Your task to perform on an android device: delete a single message in the gmail app Image 0: 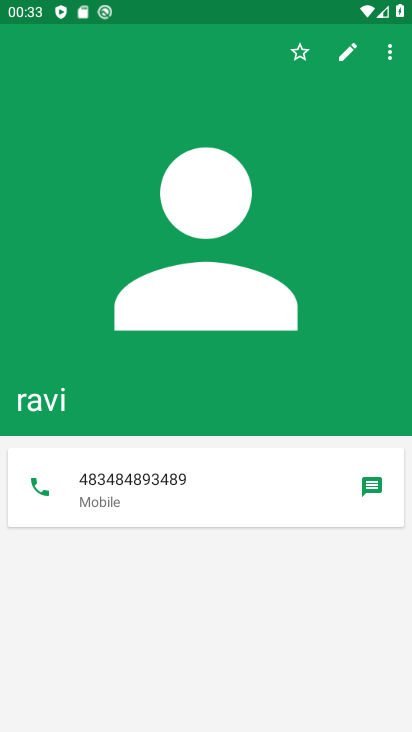
Step 0: press home button
Your task to perform on an android device: delete a single message in the gmail app Image 1: 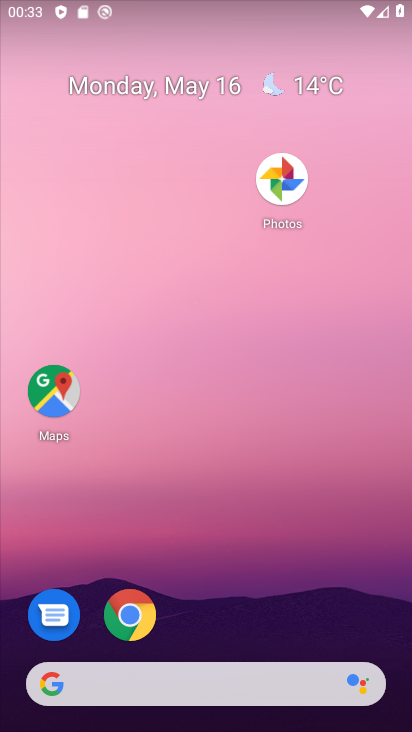
Step 1: drag from (391, 635) to (355, 315)
Your task to perform on an android device: delete a single message in the gmail app Image 2: 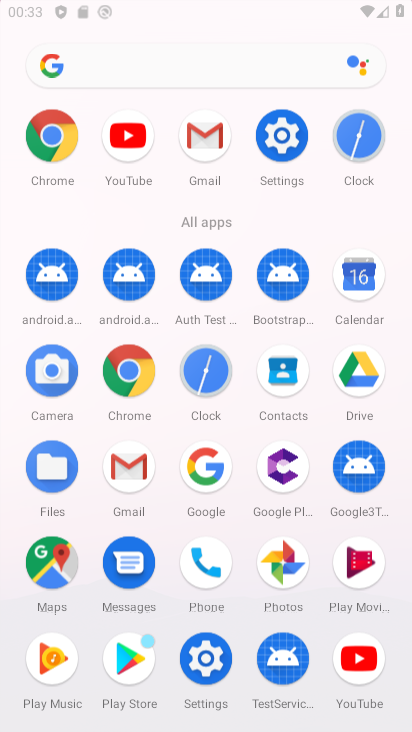
Step 2: click (150, 206)
Your task to perform on an android device: delete a single message in the gmail app Image 3: 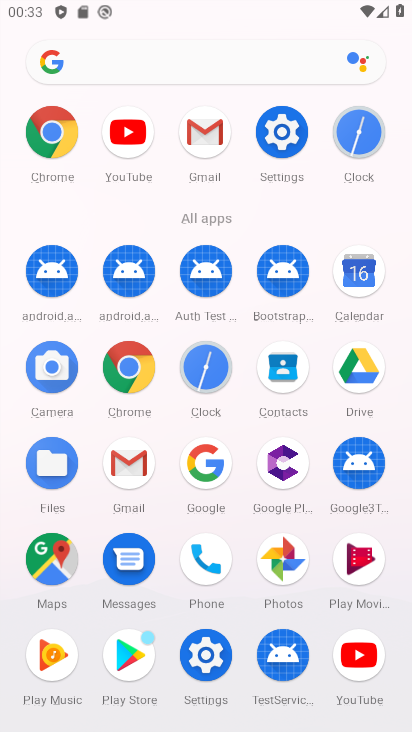
Step 3: click (140, 469)
Your task to perform on an android device: delete a single message in the gmail app Image 4: 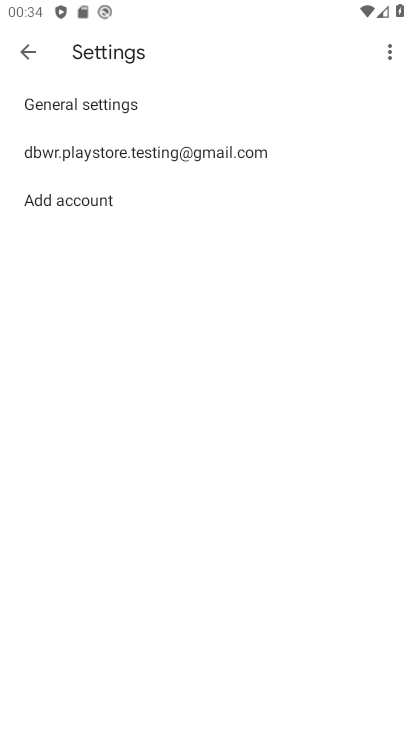
Step 4: click (230, 159)
Your task to perform on an android device: delete a single message in the gmail app Image 5: 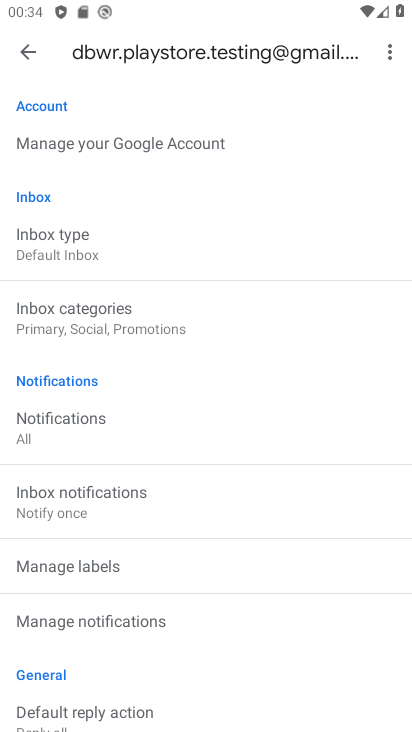
Step 5: click (50, 67)
Your task to perform on an android device: delete a single message in the gmail app Image 6: 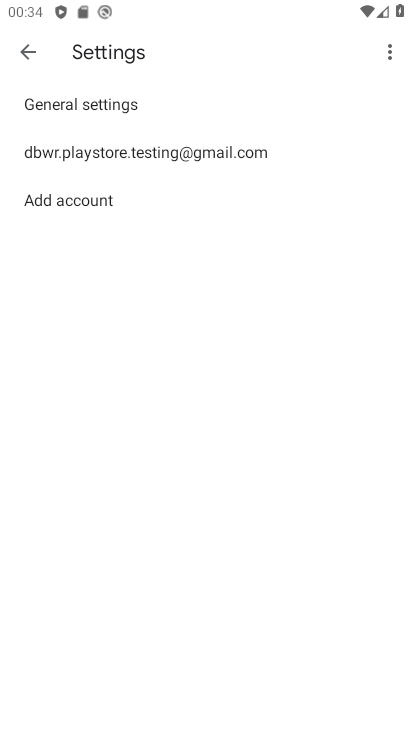
Step 6: click (49, 66)
Your task to perform on an android device: delete a single message in the gmail app Image 7: 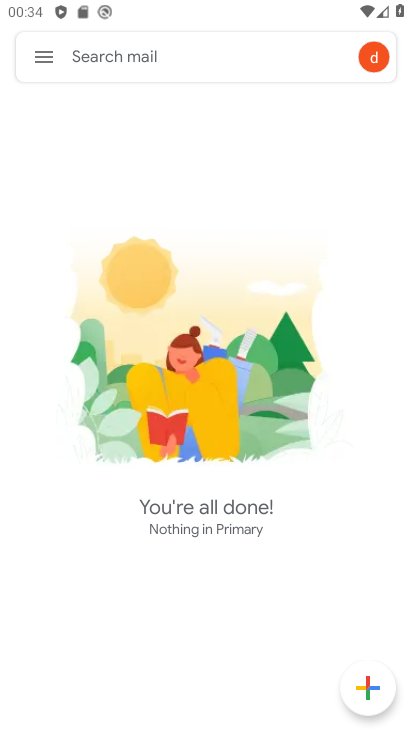
Step 7: click (49, 67)
Your task to perform on an android device: delete a single message in the gmail app Image 8: 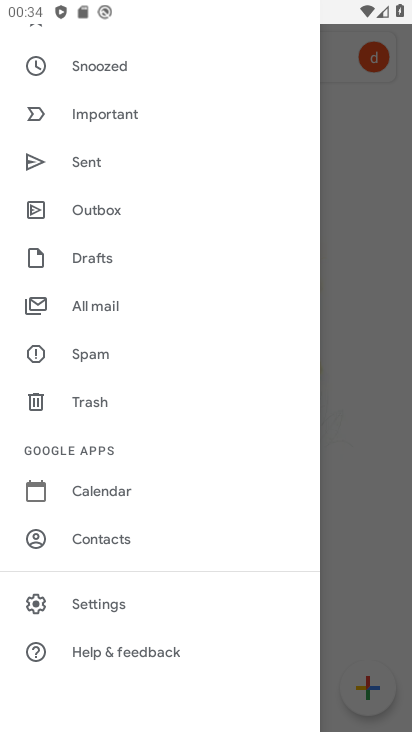
Step 8: click (120, 314)
Your task to perform on an android device: delete a single message in the gmail app Image 9: 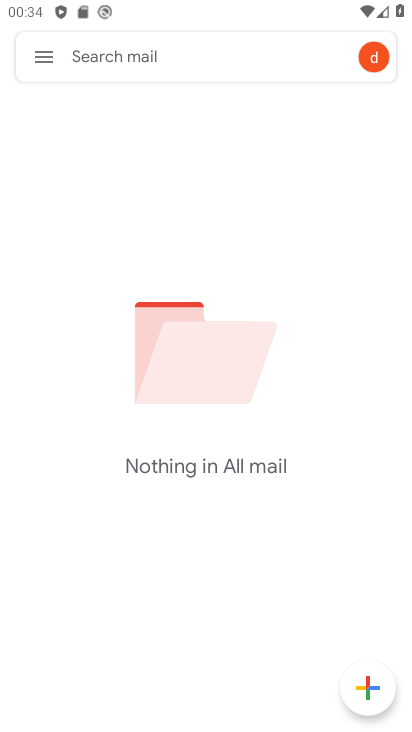
Step 9: task complete